Your task to perform on an android device: Go to CNN.com Image 0: 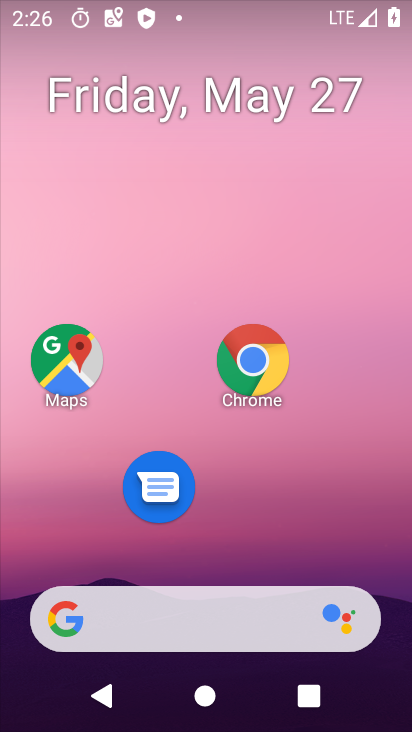
Step 0: drag from (239, 506) to (253, 70)
Your task to perform on an android device: Go to CNN.com Image 1: 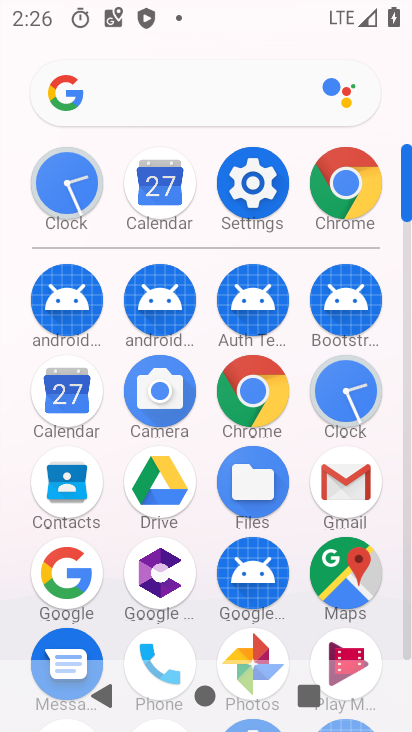
Step 1: click (56, 580)
Your task to perform on an android device: Go to CNN.com Image 2: 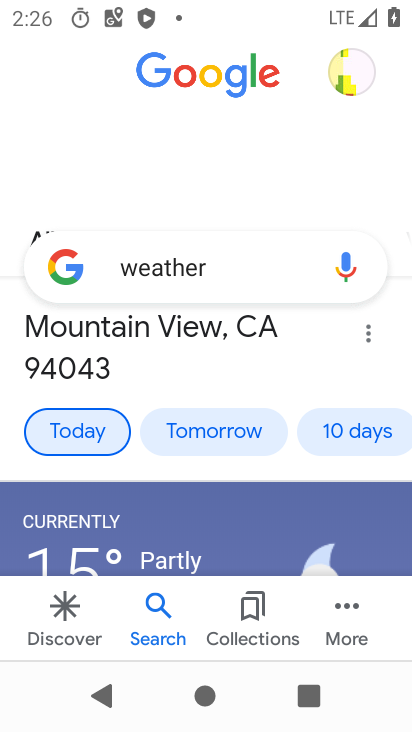
Step 2: click (240, 272)
Your task to perform on an android device: Go to CNN.com Image 3: 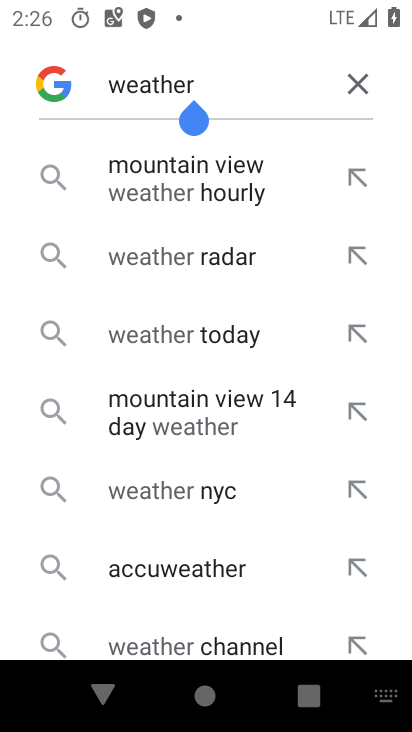
Step 3: click (340, 84)
Your task to perform on an android device: Go to CNN.com Image 4: 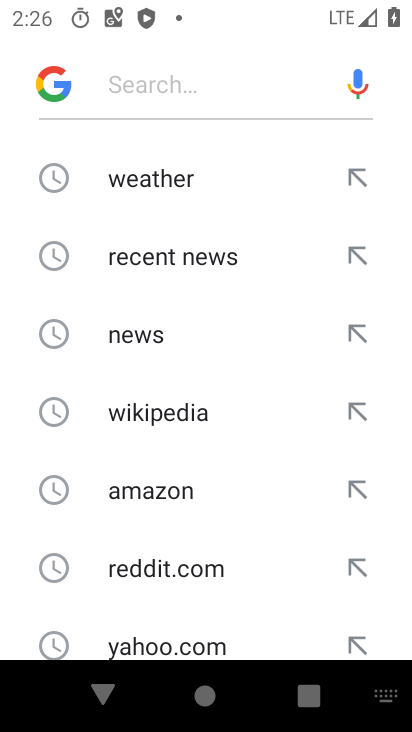
Step 4: drag from (199, 575) to (206, 217)
Your task to perform on an android device: Go to CNN.com Image 5: 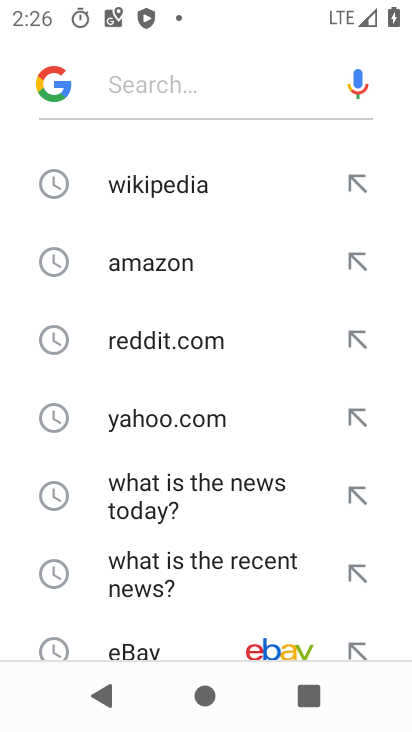
Step 5: drag from (218, 601) to (221, 143)
Your task to perform on an android device: Go to CNN.com Image 6: 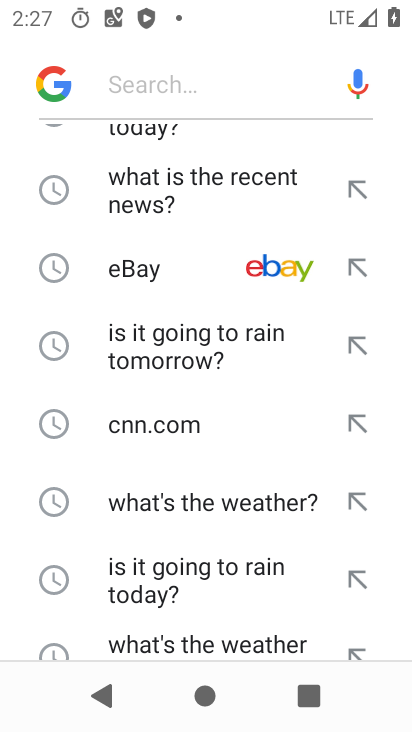
Step 6: click (148, 442)
Your task to perform on an android device: Go to CNN.com Image 7: 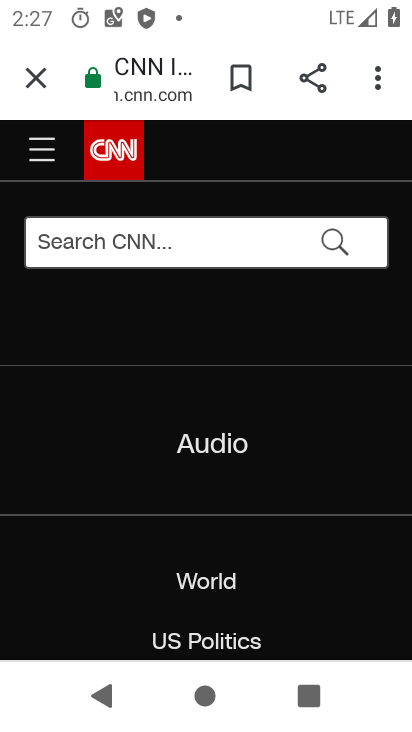
Step 7: task complete